Your task to perform on an android device: Open the phone app and click the voicemail tab. Image 0: 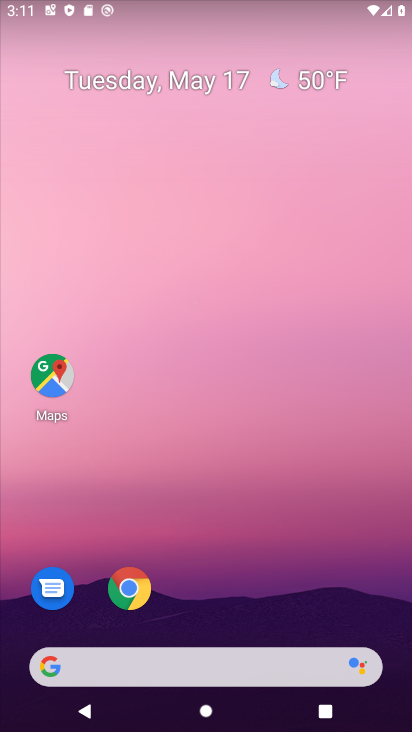
Step 0: drag from (189, 624) to (291, 134)
Your task to perform on an android device: Open the phone app and click the voicemail tab. Image 1: 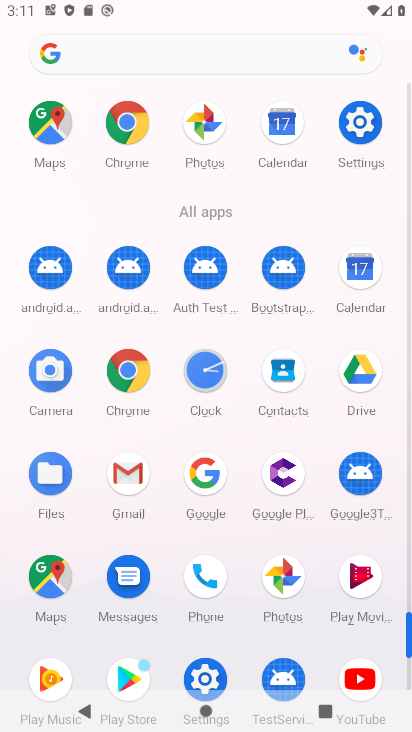
Step 1: click (193, 574)
Your task to perform on an android device: Open the phone app and click the voicemail tab. Image 2: 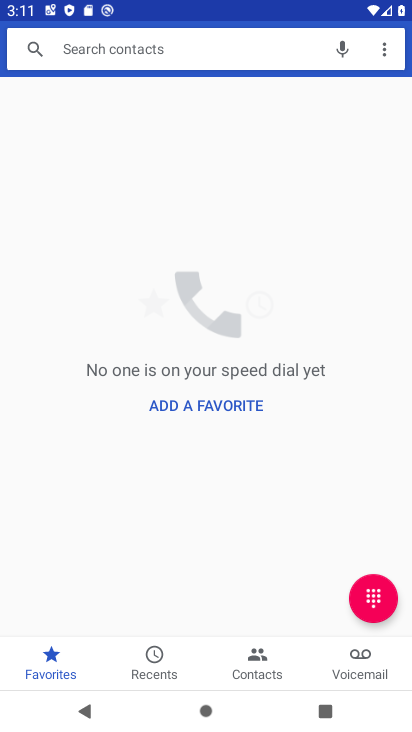
Step 2: click (373, 665)
Your task to perform on an android device: Open the phone app and click the voicemail tab. Image 3: 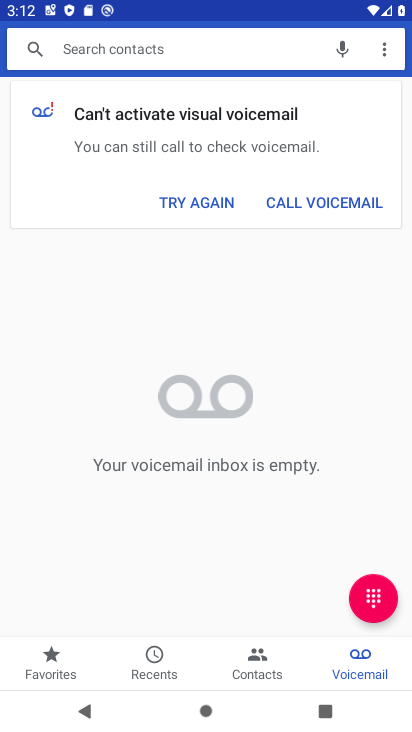
Step 3: task complete